Your task to perform on an android device: turn on notifications settings in the gmail app Image 0: 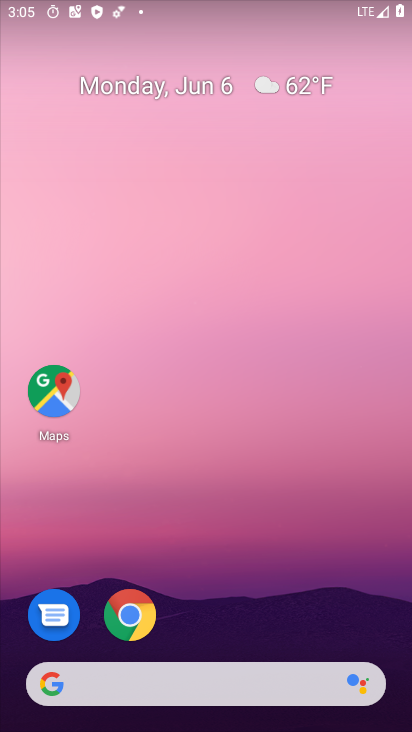
Step 0: drag from (329, 643) to (349, 102)
Your task to perform on an android device: turn on notifications settings in the gmail app Image 1: 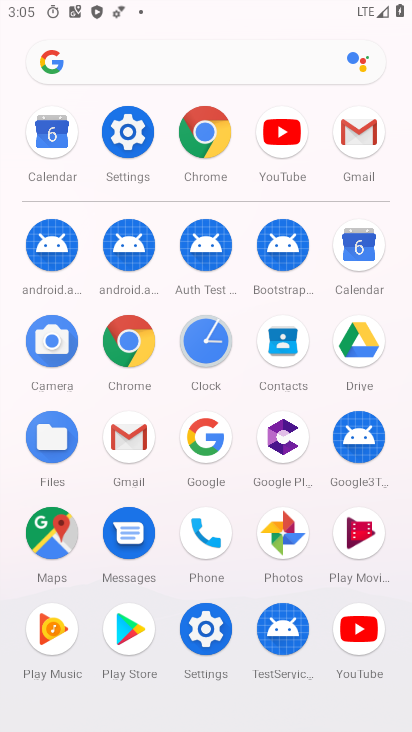
Step 1: click (126, 442)
Your task to perform on an android device: turn on notifications settings in the gmail app Image 2: 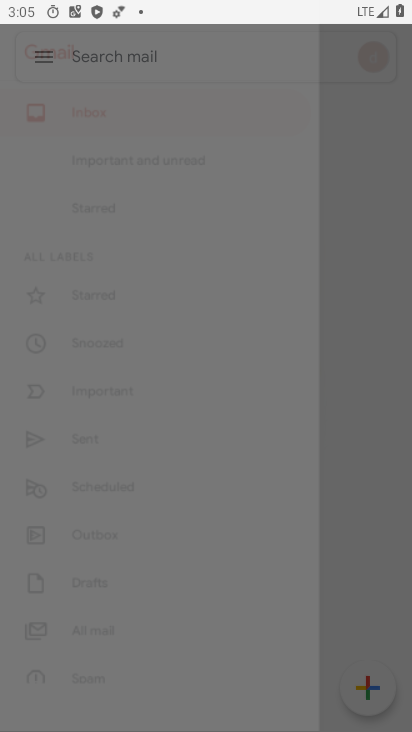
Step 2: drag from (69, 642) to (129, 288)
Your task to perform on an android device: turn on notifications settings in the gmail app Image 3: 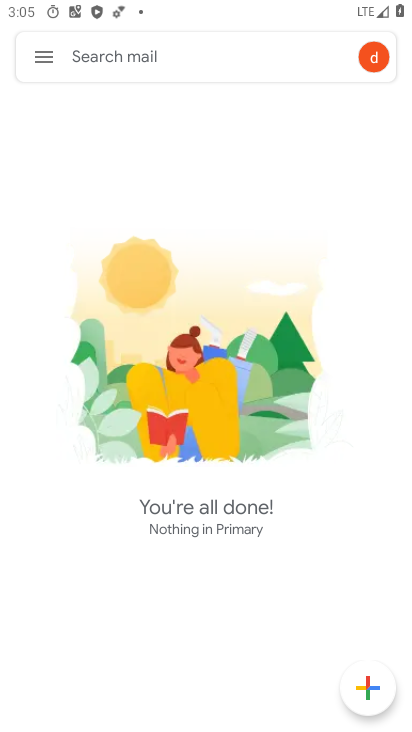
Step 3: click (44, 55)
Your task to perform on an android device: turn on notifications settings in the gmail app Image 4: 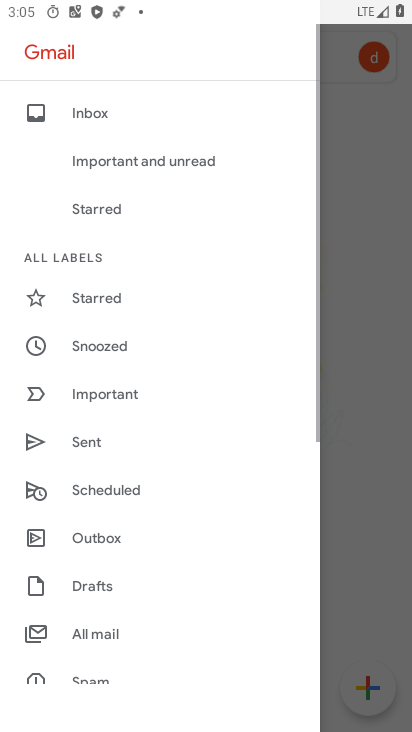
Step 4: drag from (218, 694) to (249, 160)
Your task to perform on an android device: turn on notifications settings in the gmail app Image 5: 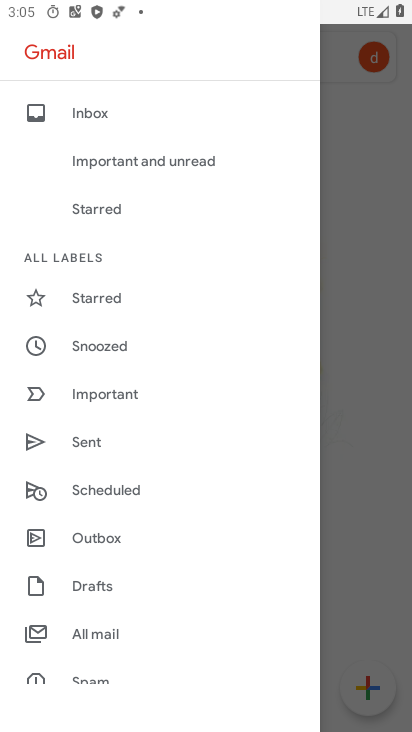
Step 5: drag from (143, 545) to (211, 139)
Your task to perform on an android device: turn on notifications settings in the gmail app Image 6: 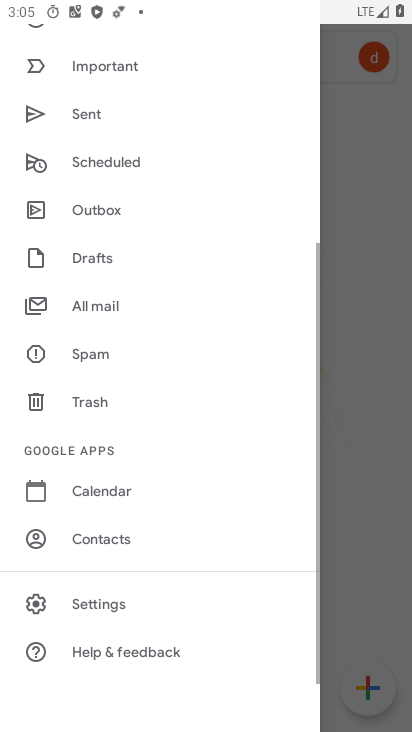
Step 6: click (136, 595)
Your task to perform on an android device: turn on notifications settings in the gmail app Image 7: 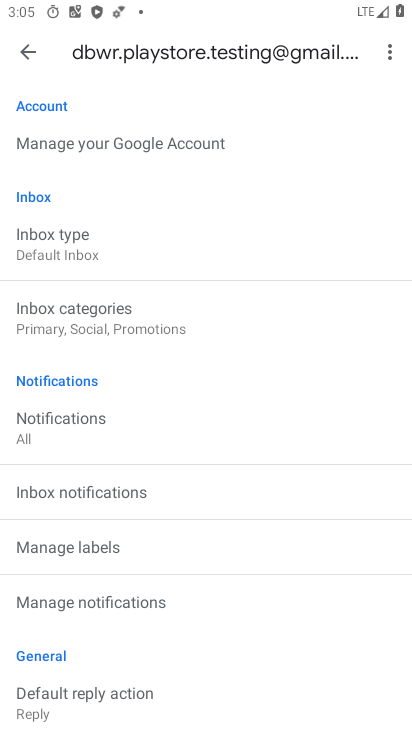
Step 7: task complete